Your task to perform on an android device: turn pop-ups off in chrome Image 0: 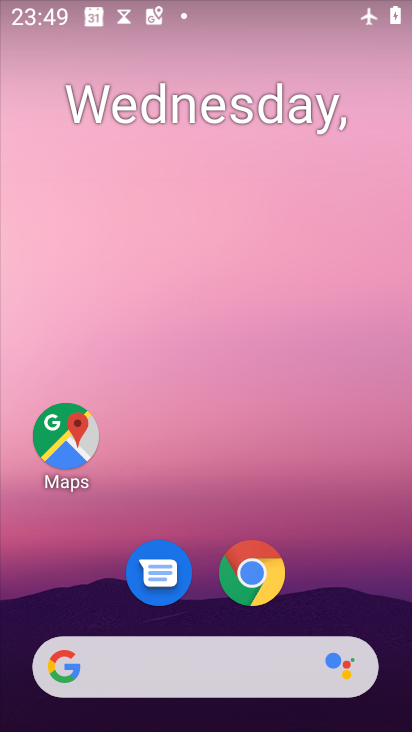
Step 0: click (248, 564)
Your task to perform on an android device: turn pop-ups off in chrome Image 1: 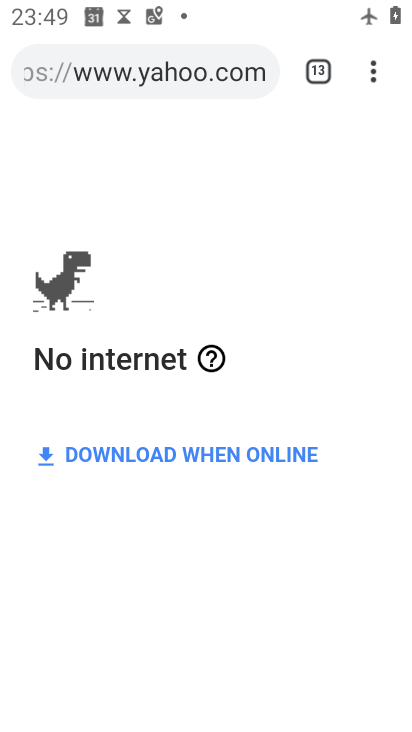
Step 1: click (375, 64)
Your task to perform on an android device: turn pop-ups off in chrome Image 2: 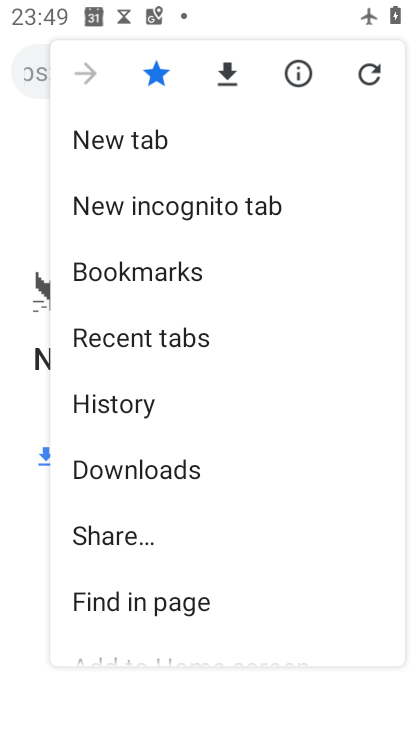
Step 2: drag from (257, 575) to (227, 260)
Your task to perform on an android device: turn pop-ups off in chrome Image 3: 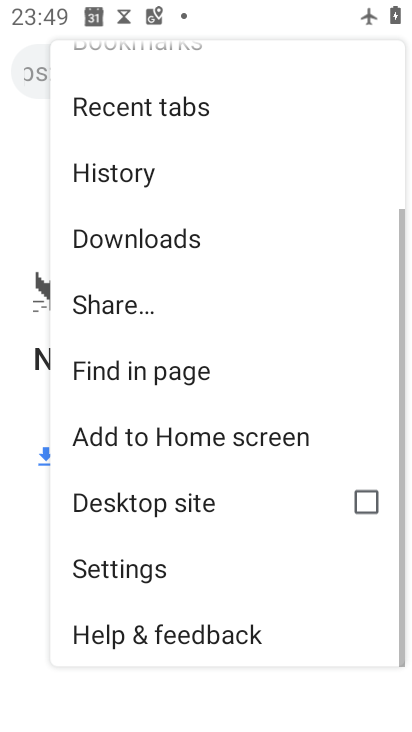
Step 3: click (115, 557)
Your task to perform on an android device: turn pop-ups off in chrome Image 4: 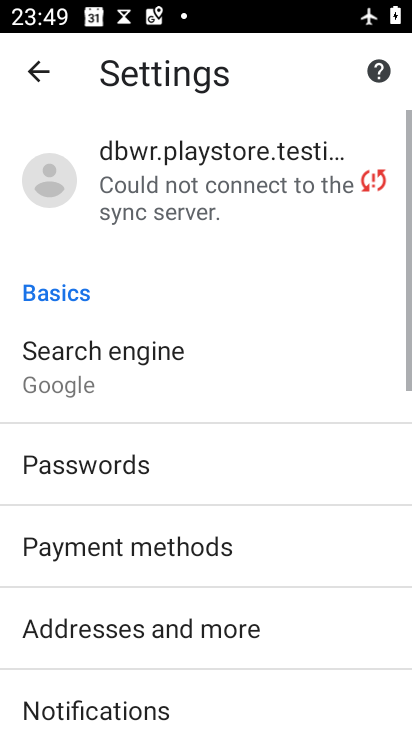
Step 4: drag from (243, 601) to (233, 273)
Your task to perform on an android device: turn pop-ups off in chrome Image 5: 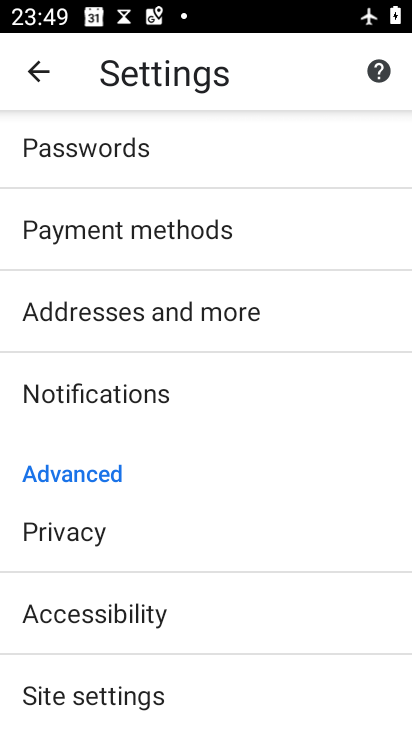
Step 5: click (173, 695)
Your task to perform on an android device: turn pop-ups off in chrome Image 6: 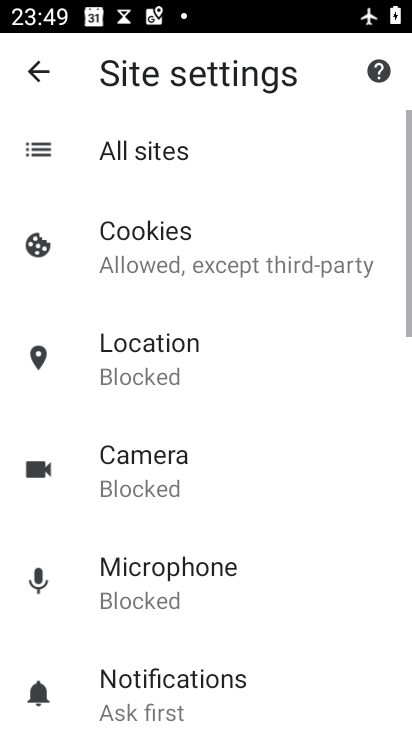
Step 6: drag from (195, 638) to (223, 306)
Your task to perform on an android device: turn pop-ups off in chrome Image 7: 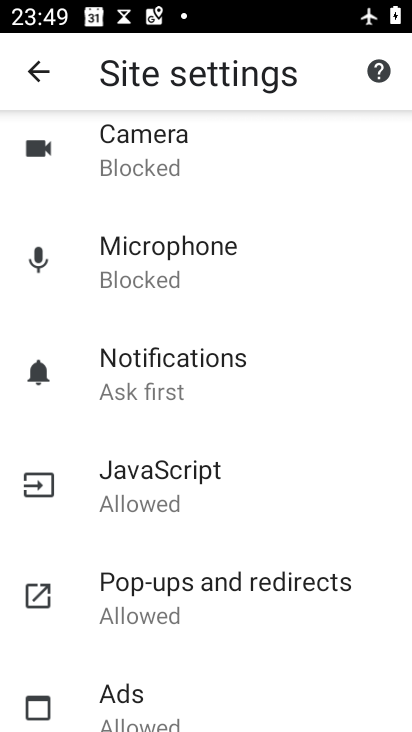
Step 7: click (189, 573)
Your task to perform on an android device: turn pop-ups off in chrome Image 8: 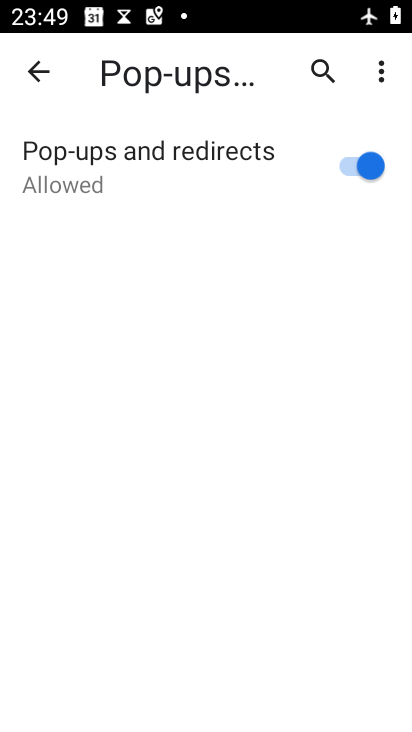
Step 8: click (341, 172)
Your task to perform on an android device: turn pop-ups off in chrome Image 9: 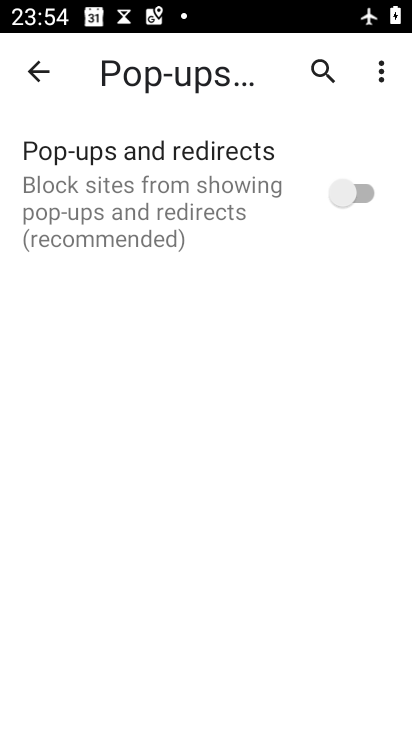
Step 9: task complete